Your task to perform on an android device: toggle sleep mode Image 0: 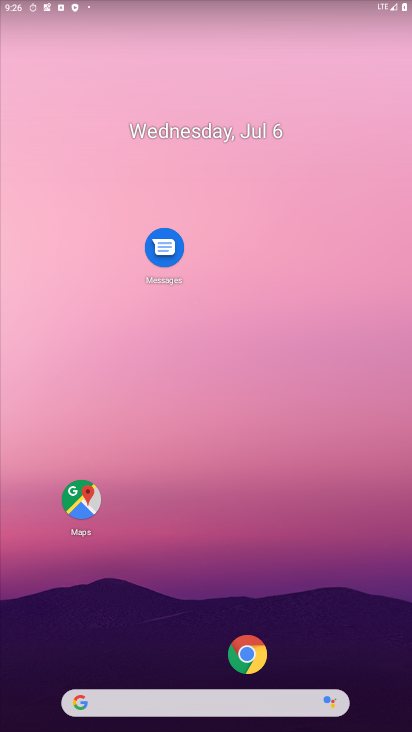
Step 0: task impossible